Your task to perform on an android device: Open network settings Image 0: 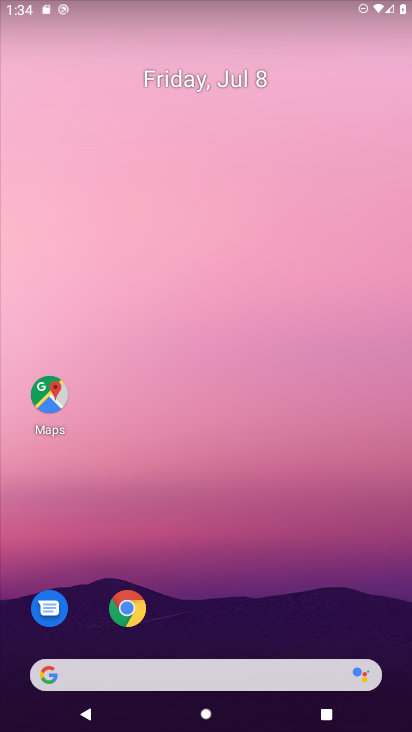
Step 0: drag from (274, 620) to (317, 5)
Your task to perform on an android device: Open network settings Image 1: 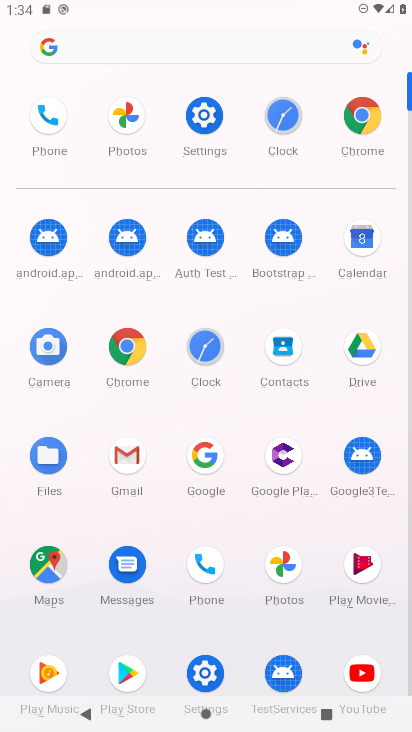
Step 1: click (205, 115)
Your task to perform on an android device: Open network settings Image 2: 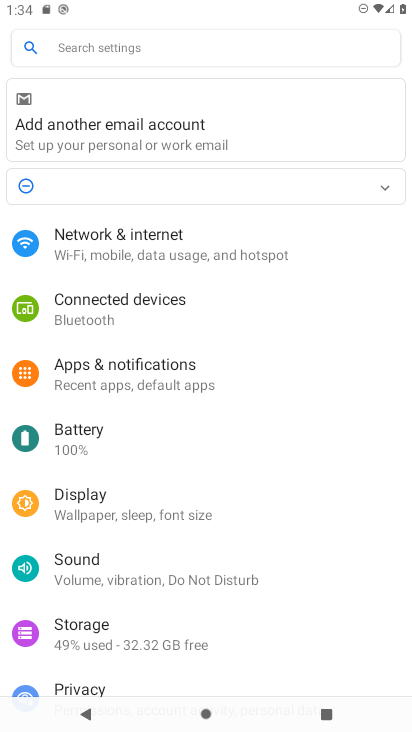
Step 2: click (154, 227)
Your task to perform on an android device: Open network settings Image 3: 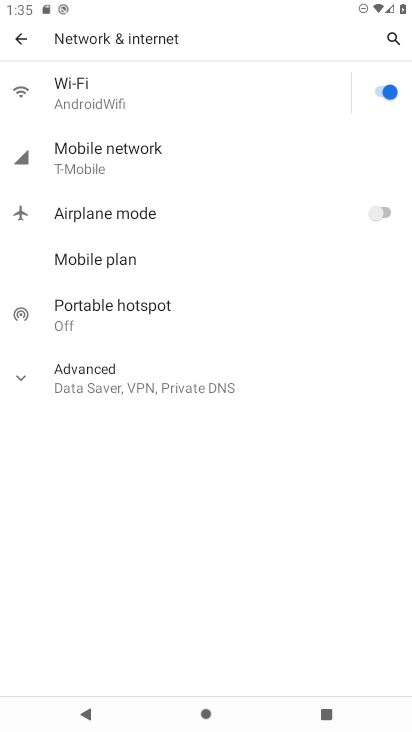
Step 3: task complete